Your task to perform on an android device: Open the map Image 0: 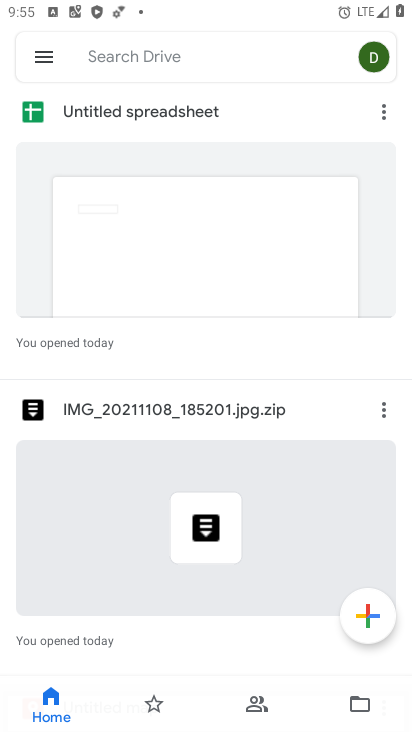
Step 0: press home button
Your task to perform on an android device: Open the map Image 1: 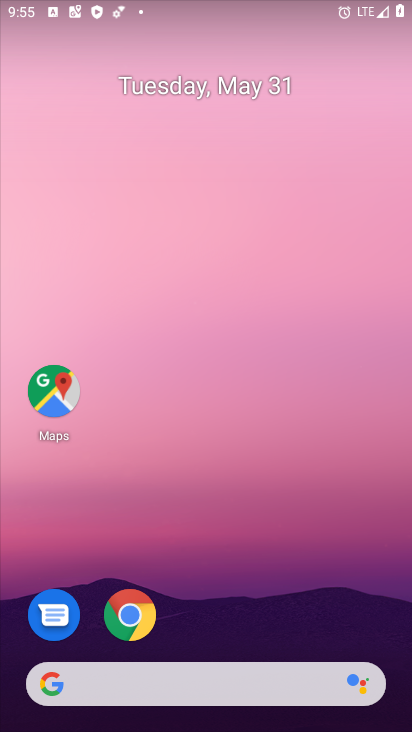
Step 1: click (54, 391)
Your task to perform on an android device: Open the map Image 2: 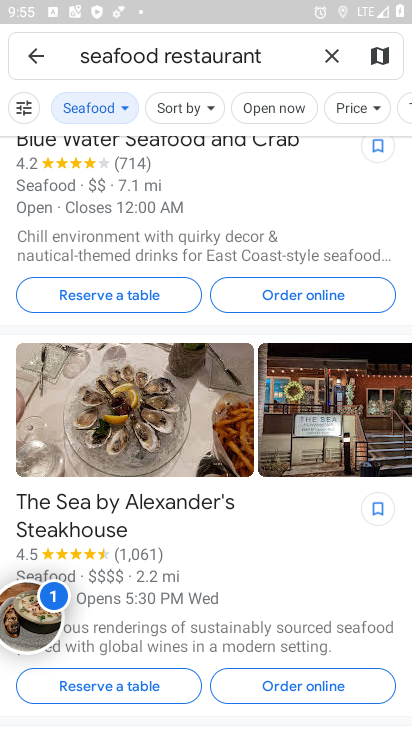
Step 2: click (329, 54)
Your task to perform on an android device: Open the map Image 3: 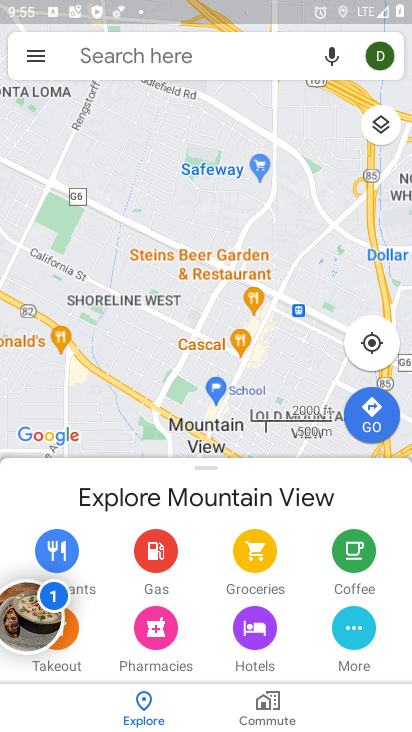
Step 3: task complete